Your task to perform on an android device: Show me recent news Image 0: 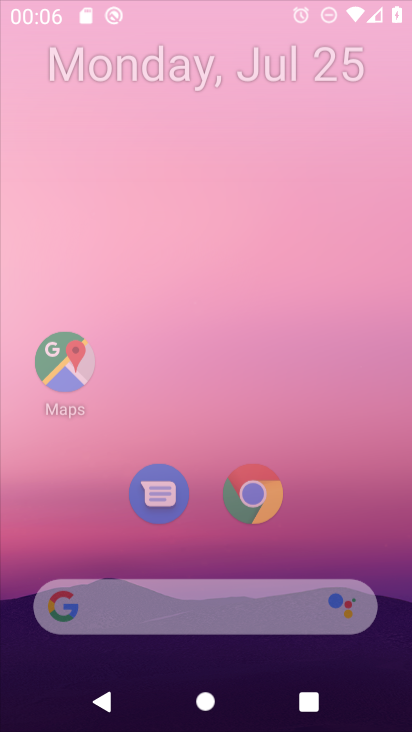
Step 0: press home button
Your task to perform on an android device: Show me recent news Image 1: 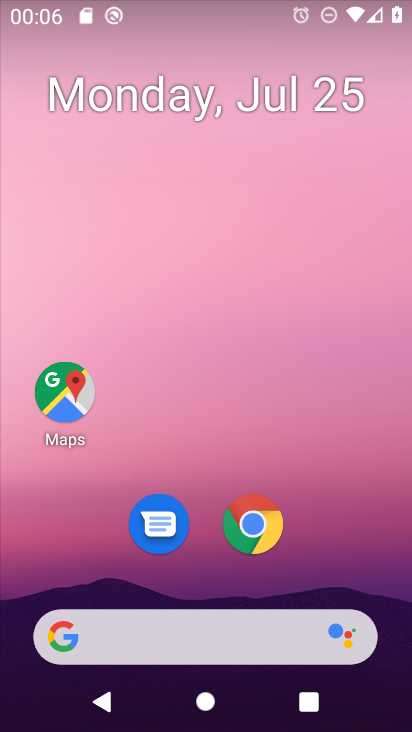
Step 1: click (156, 618)
Your task to perform on an android device: Show me recent news Image 2: 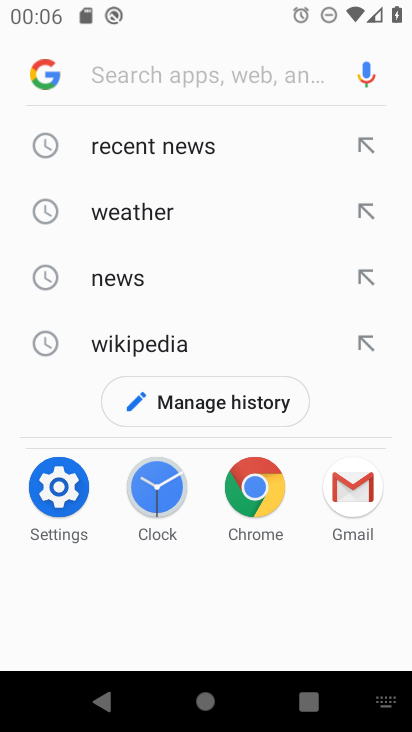
Step 2: click (176, 146)
Your task to perform on an android device: Show me recent news Image 3: 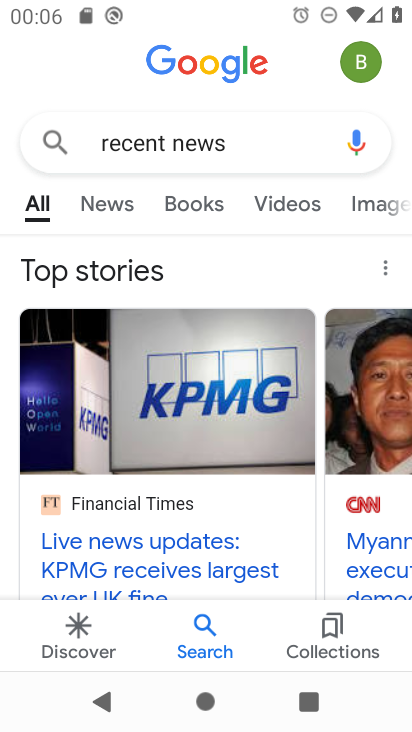
Step 3: click (123, 206)
Your task to perform on an android device: Show me recent news Image 4: 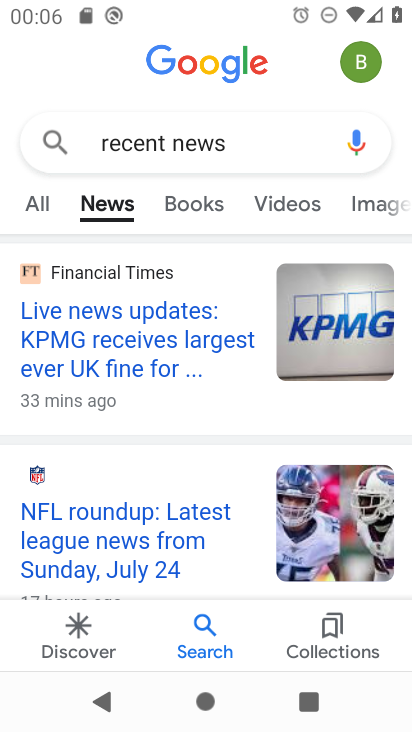
Step 4: task complete